Your task to perform on an android device: delete a single message in the gmail app Image 0: 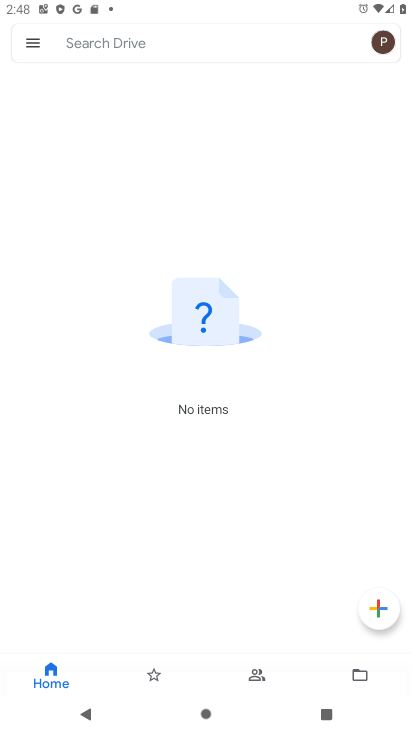
Step 0: press home button
Your task to perform on an android device: delete a single message in the gmail app Image 1: 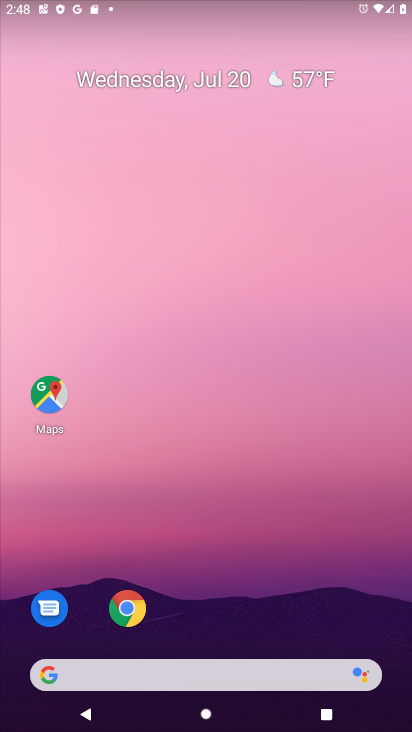
Step 1: click (170, 621)
Your task to perform on an android device: delete a single message in the gmail app Image 2: 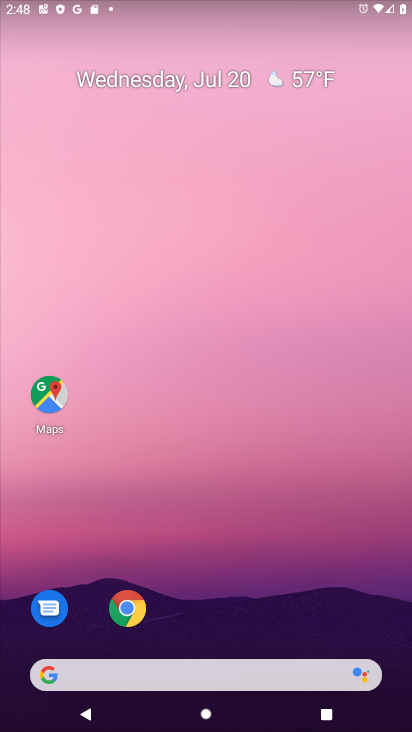
Step 2: drag from (217, 573) to (264, 89)
Your task to perform on an android device: delete a single message in the gmail app Image 3: 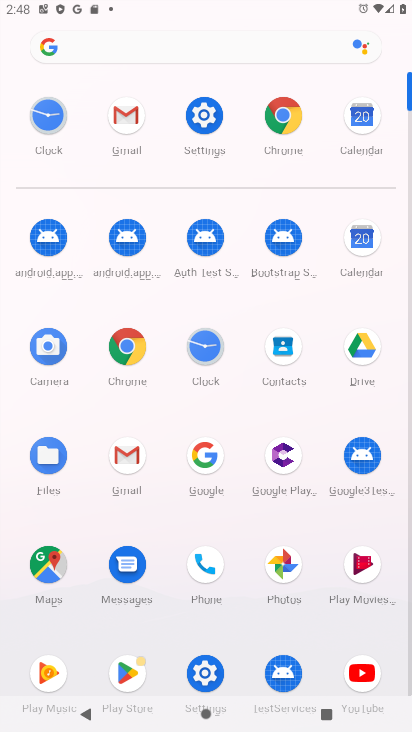
Step 3: click (129, 119)
Your task to perform on an android device: delete a single message in the gmail app Image 4: 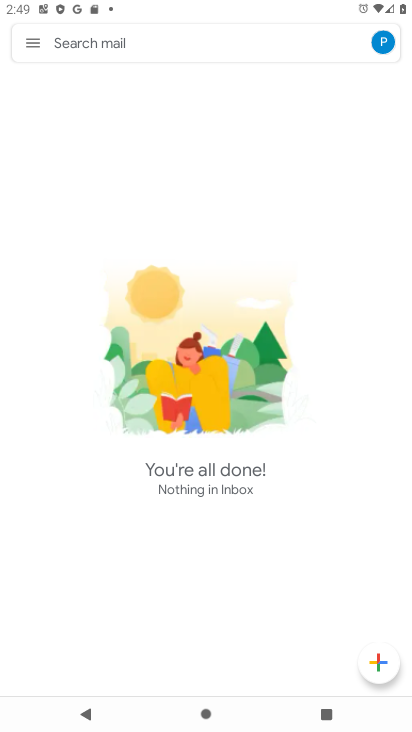
Step 4: click (32, 45)
Your task to perform on an android device: delete a single message in the gmail app Image 5: 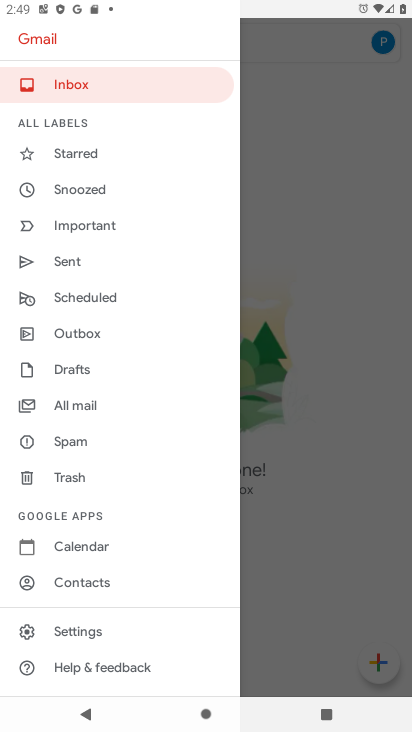
Step 5: click (74, 402)
Your task to perform on an android device: delete a single message in the gmail app Image 6: 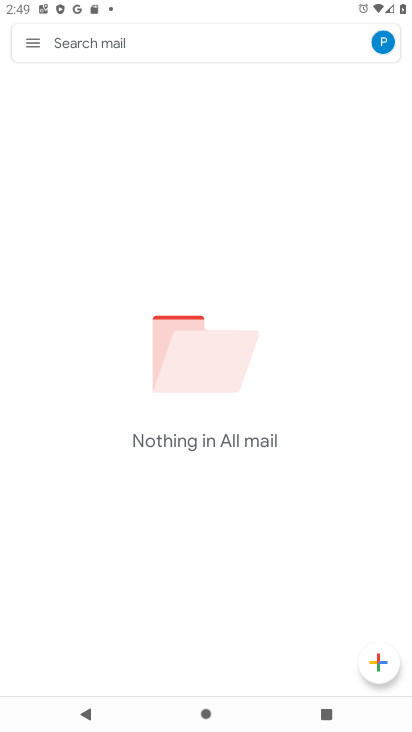
Step 6: task complete